Your task to perform on an android device: Open Yahoo.com Image 0: 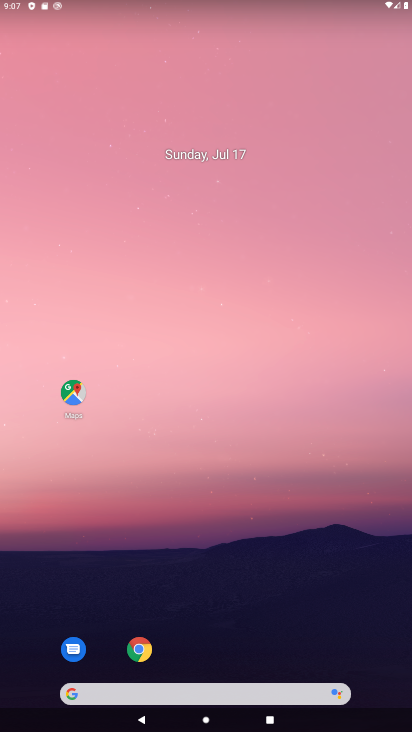
Step 0: click (108, 686)
Your task to perform on an android device: Open Yahoo.com Image 1: 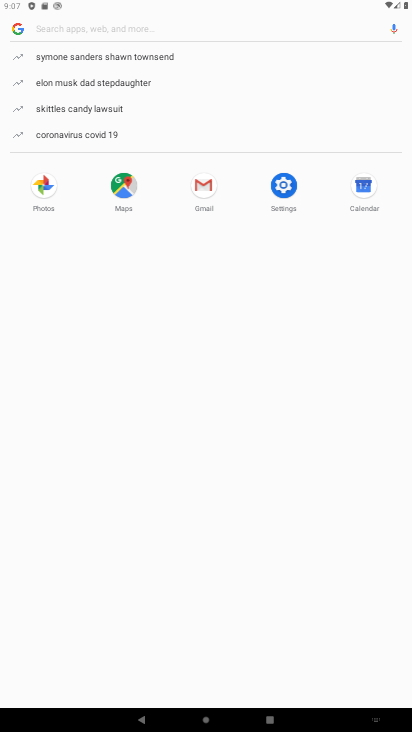
Step 1: type "Yahoo.com"
Your task to perform on an android device: Open Yahoo.com Image 2: 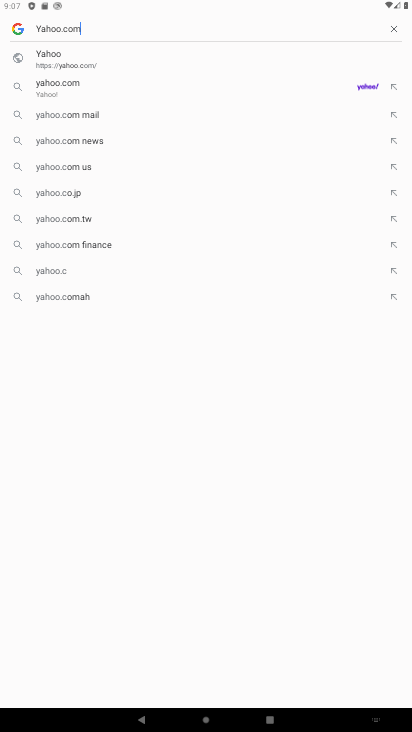
Step 2: type ""
Your task to perform on an android device: Open Yahoo.com Image 3: 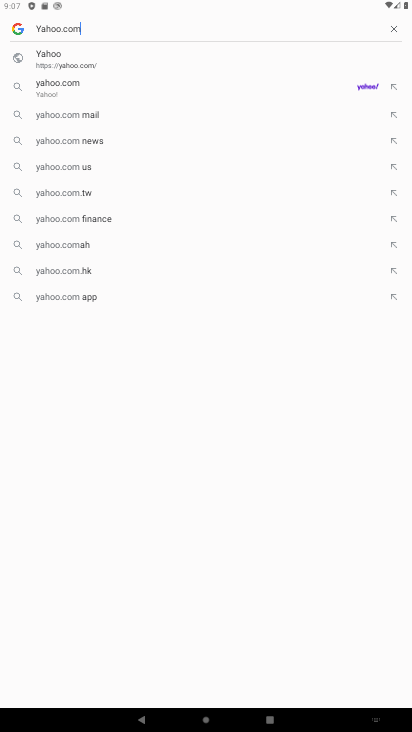
Step 3: type ""
Your task to perform on an android device: Open Yahoo.com Image 4: 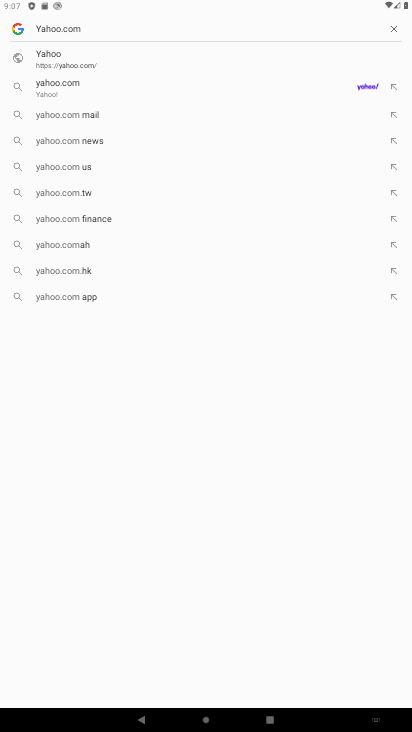
Step 4: type ""
Your task to perform on an android device: Open Yahoo.com Image 5: 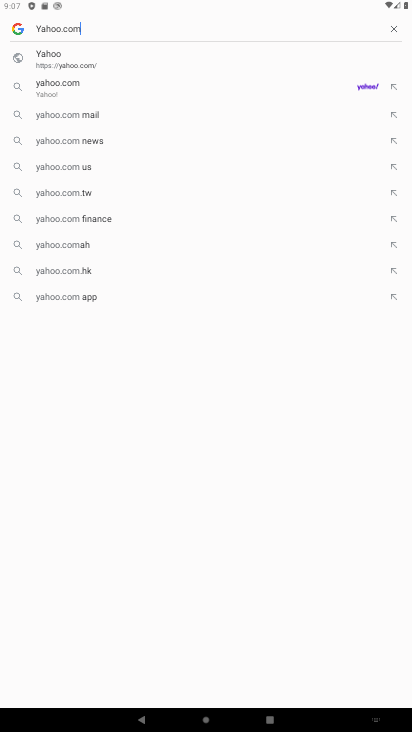
Step 5: click (46, 59)
Your task to perform on an android device: Open Yahoo.com Image 6: 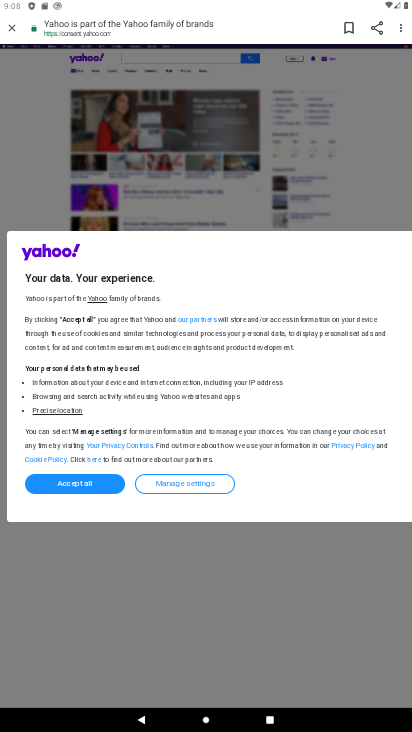
Step 6: task complete